Your task to perform on an android device: Search for hotels in Atlanta Image 0: 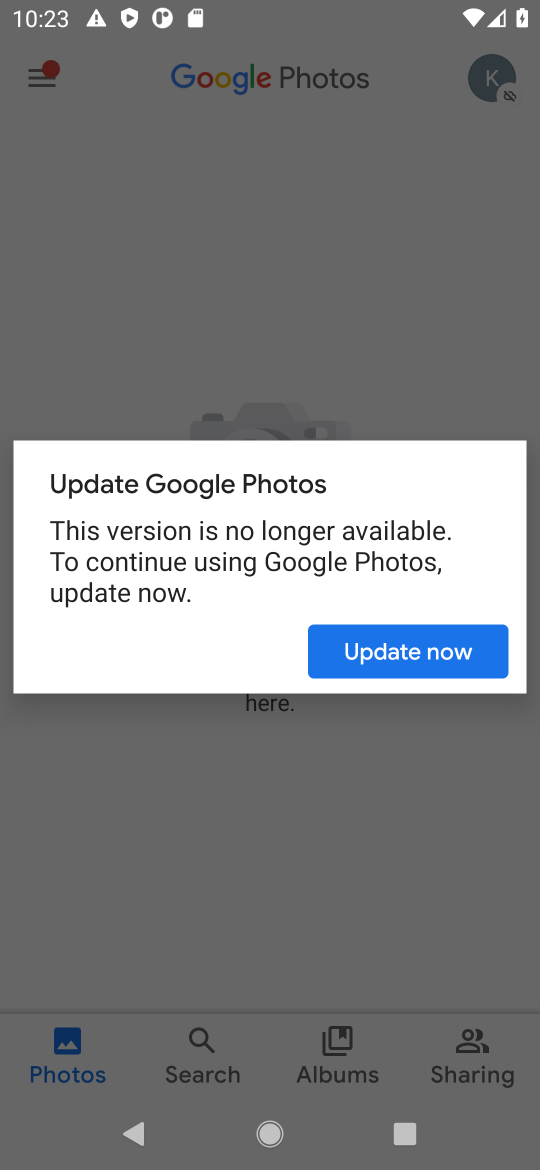
Step 0: press home button
Your task to perform on an android device: Search for hotels in Atlanta Image 1: 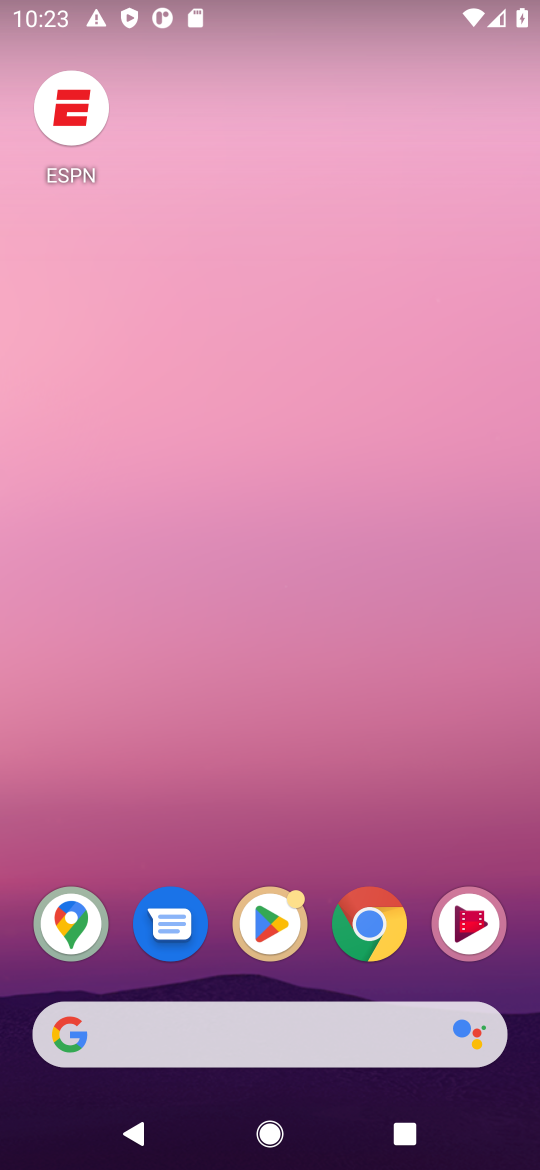
Step 1: click (364, 925)
Your task to perform on an android device: Search for hotels in Atlanta Image 2: 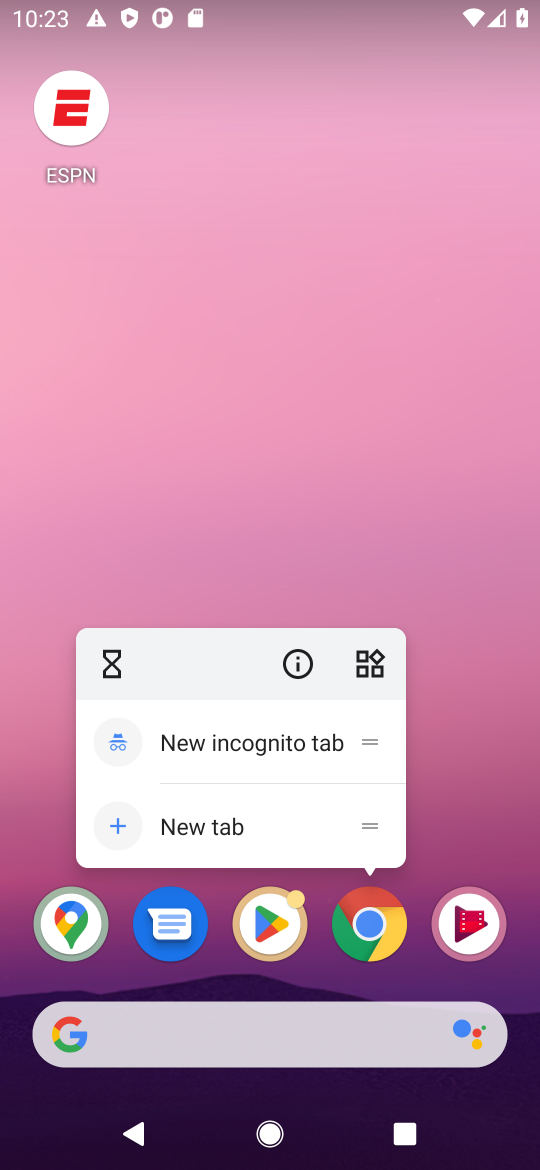
Step 2: click (364, 924)
Your task to perform on an android device: Search for hotels in Atlanta Image 3: 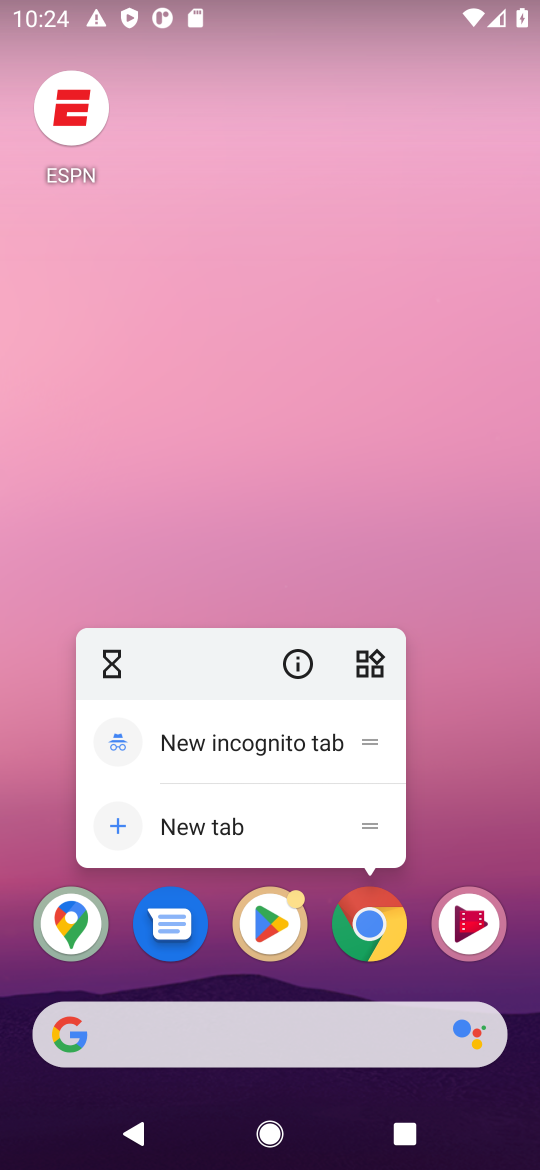
Step 3: click (62, 923)
Your task to perform on an android device: Search for hotels in Atlanta Image 4: 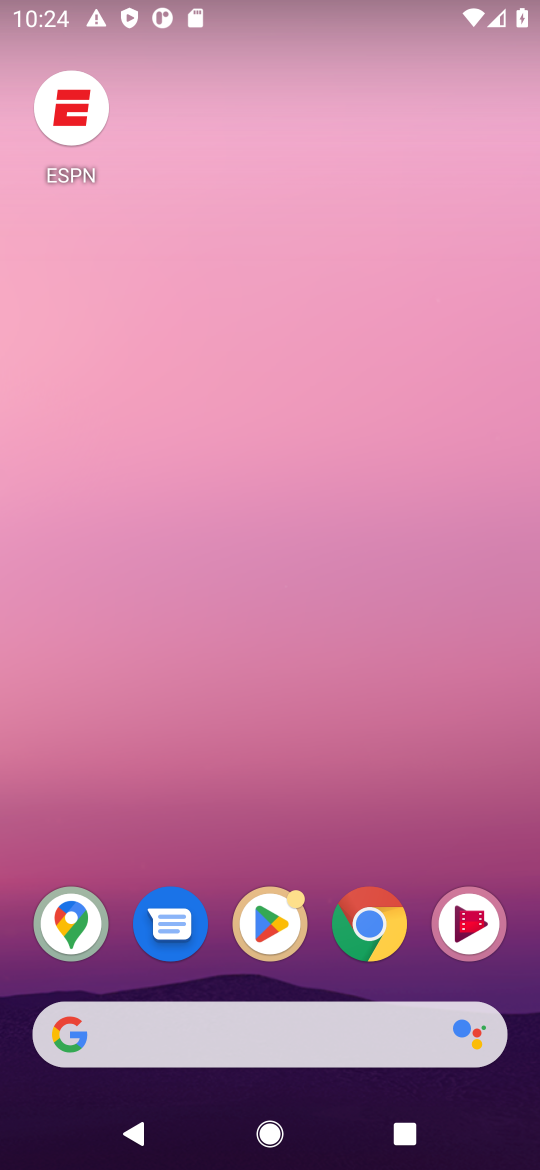
Step 4: click (73, 921)
Your task to perform on an android device: Search for hotels in Atlanta Image 5: 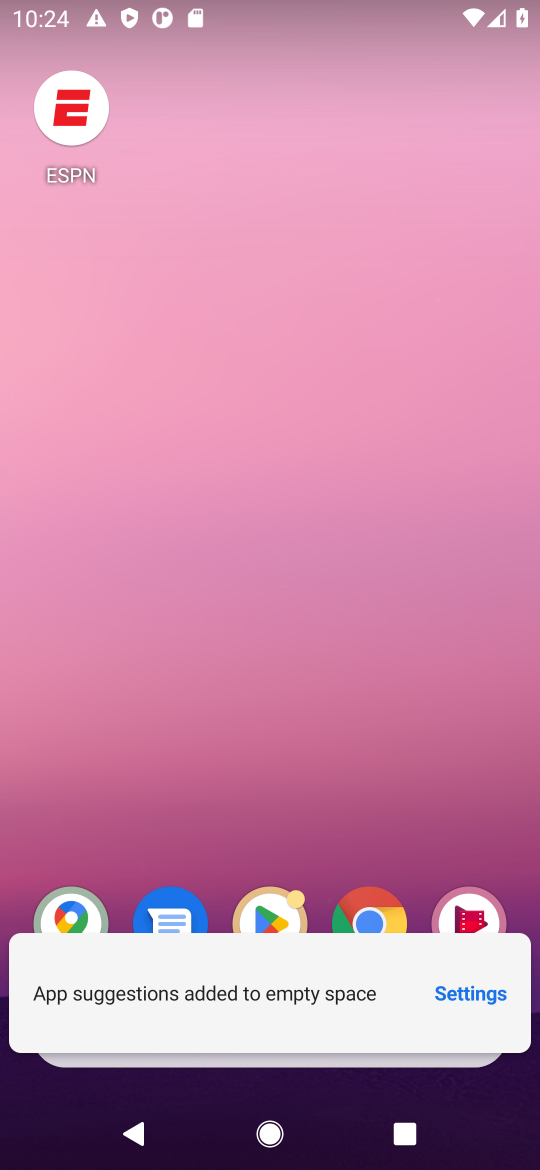
Step 5: click (73, 930)
Your task to perform on an android device: Search for hotels in Atlanta Image 6: 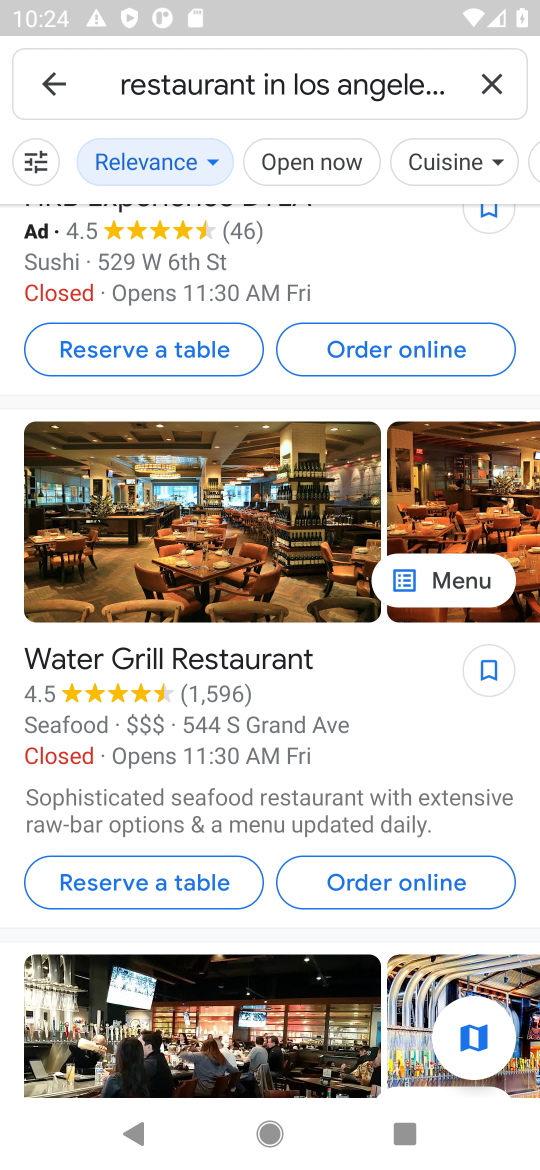
Step 6: click (495, 80)
Your task to perform on an android device: Search for hotels in Atlanta Image 7: 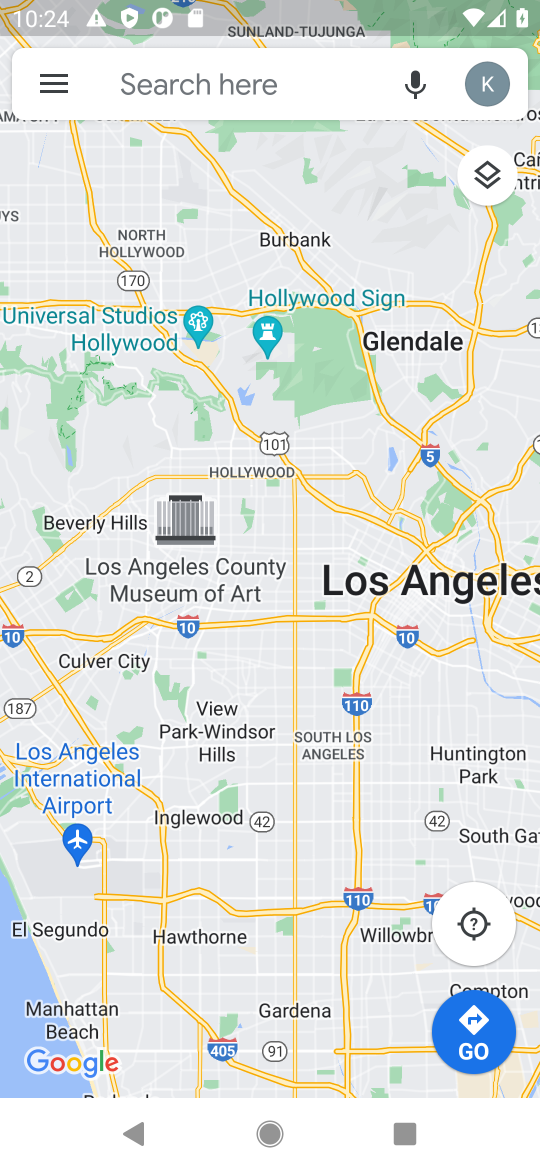
Step 7: type "hotels in Atlanta"
Your task to perform on an android device: Search for hotels in Atlanta Image 8: 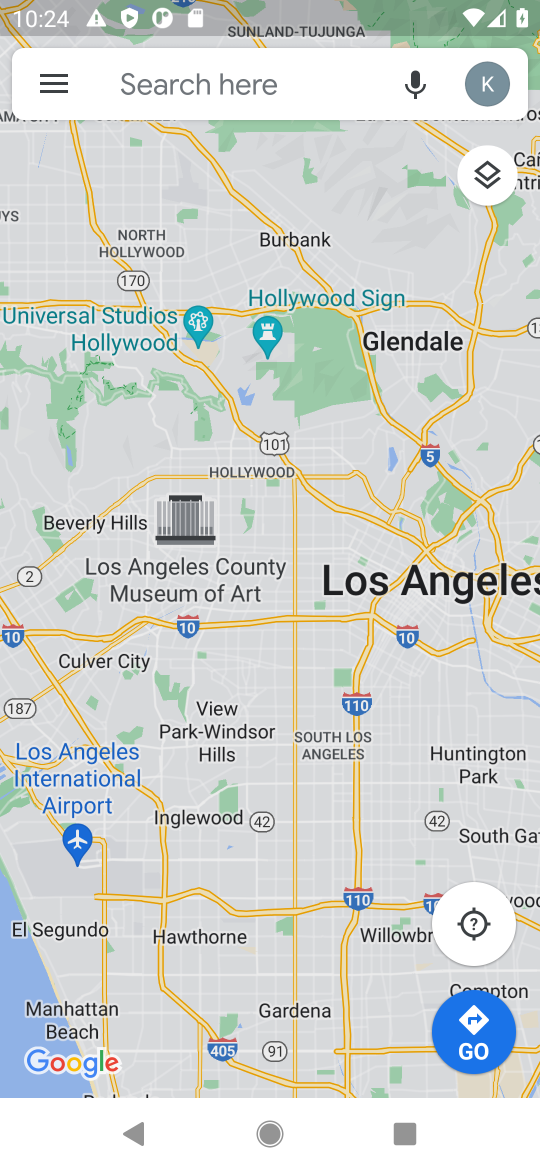
Step 8: click (224, 81)
Your task to perform on an android device: Search for hotels in Atlanta Image 9: 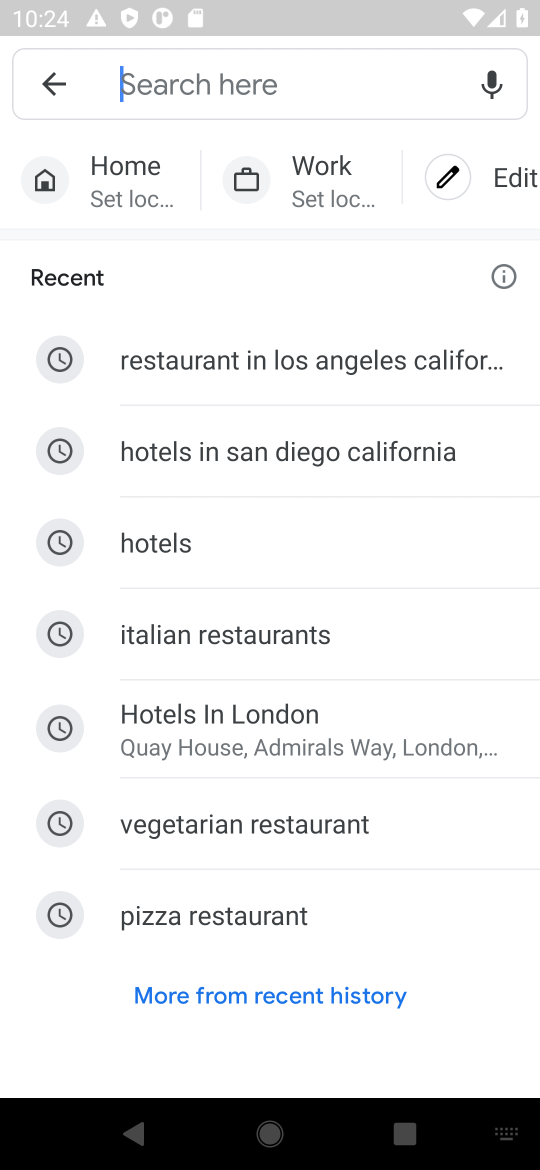
Step 9: type "hotels in Atlanta"
Your task to perform on an android device: Search for hotels in Atlanta Image 10: 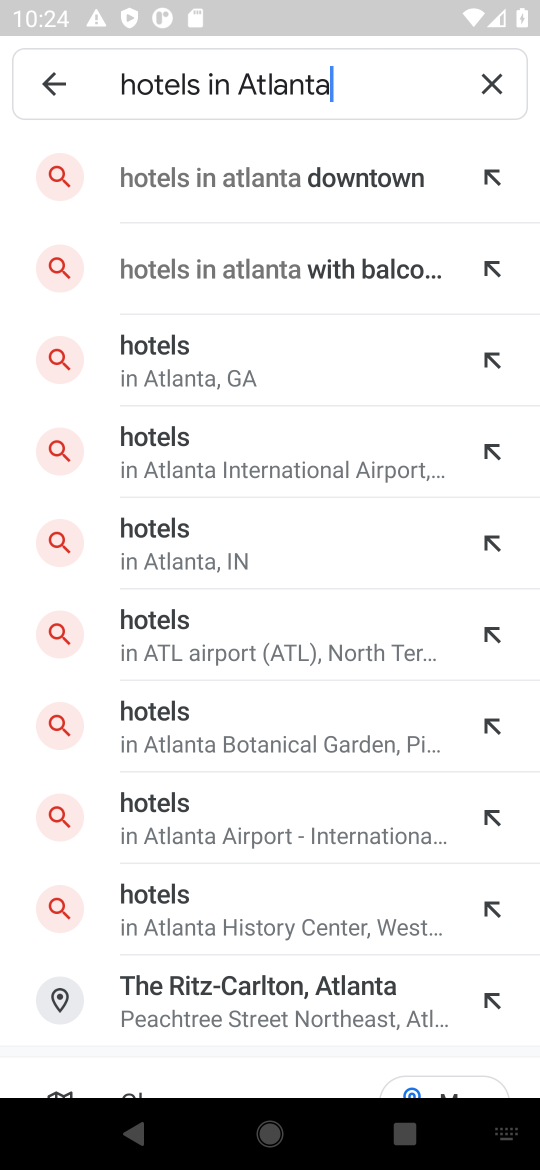
Step 10: click (227, 184)
Your task to perform on an android device: Search for hotels in Atlanta Image 11: 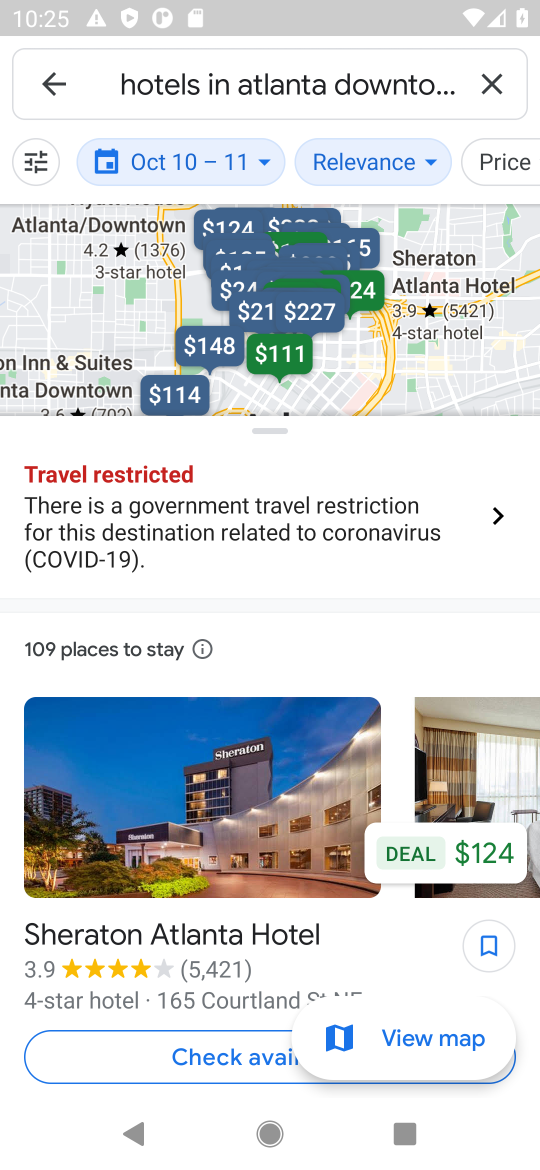
Step 11: task complete